Your task to perform on an android device: toggle notification dots Image 0: 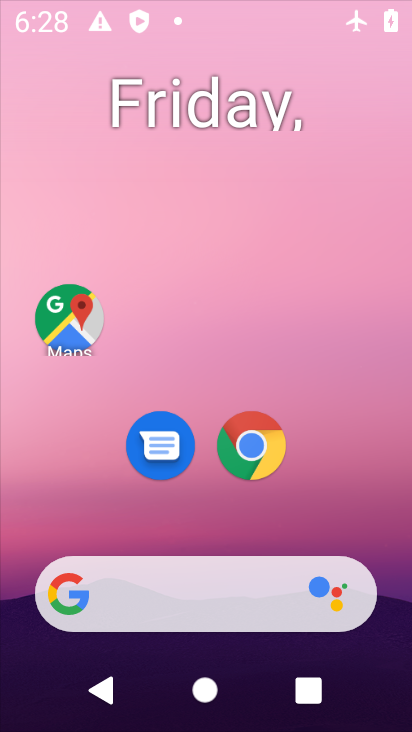
Step 0: drag from (206, 533) to (260, 159)
Your task to perform on an android device: toggle notification dots Image 1: 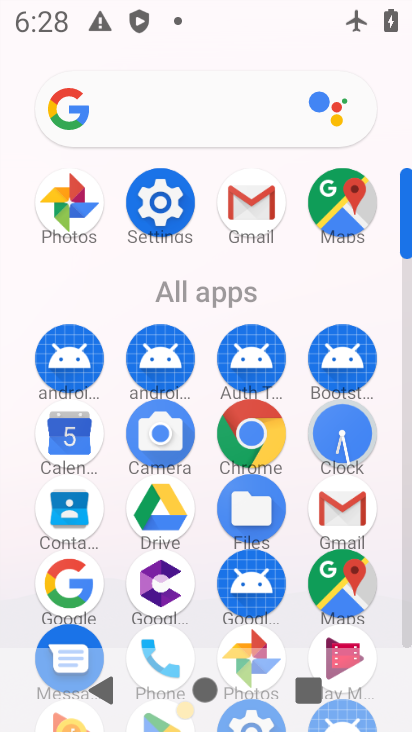
Step 1: drag from (188, 588) to (227, 289)
Your task to perform on an android device: toggle notification dots Image 2: 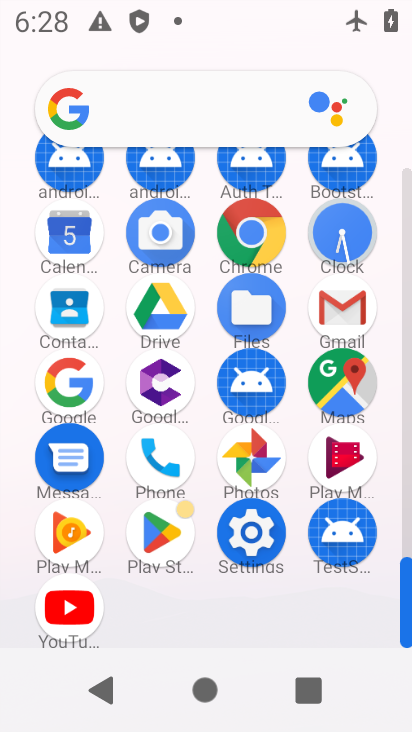
Step 2: click (242, 542)
Your task to perform on an android device: toggle notification dots Image 3: 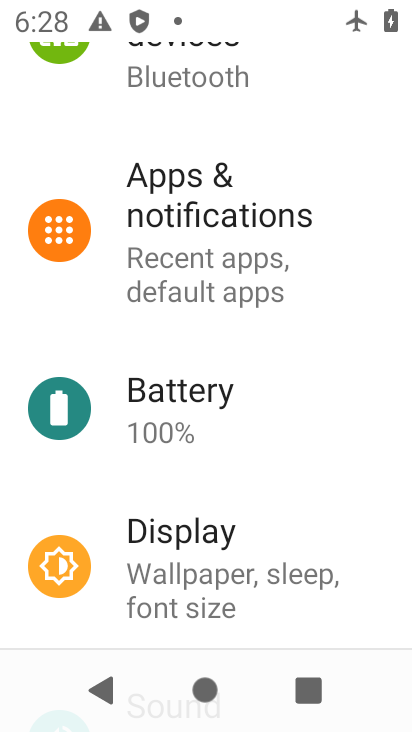
Step 3: drag from (217, 278) to (290, 665)
Your task to perform on an android device: toggle notification dots Image 4: 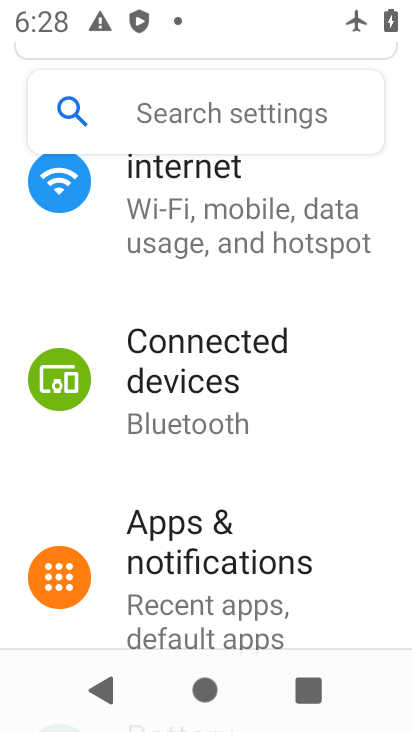
Step 4: drag from (249, 354) to (362, 241)
Your task to perform on an android device: toggle notification dots Image 5: 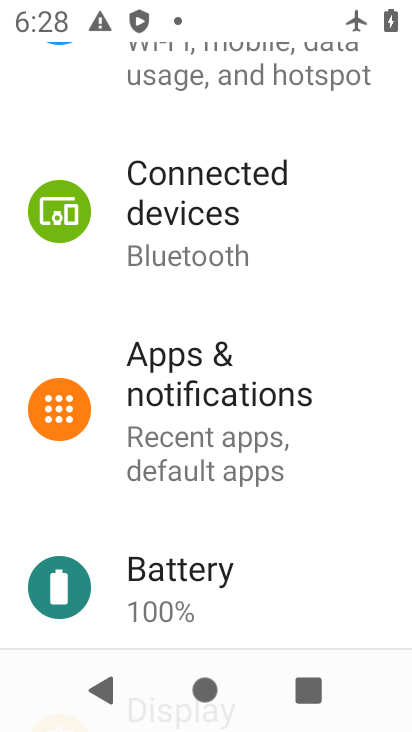
Step 5: click (220, 398)
Your task to perform on an android device: toggle notification dots Image 6: 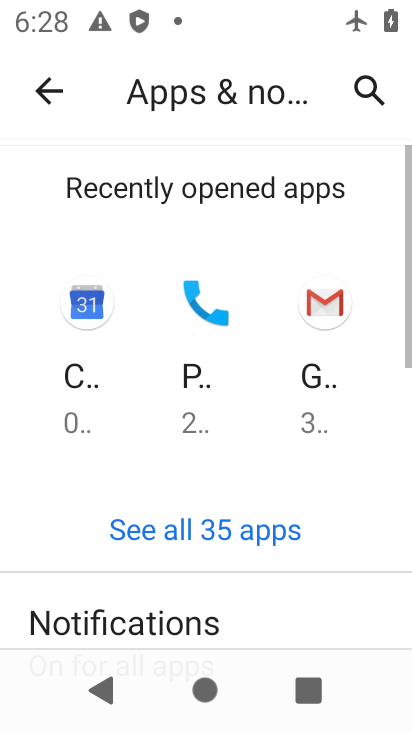
Step 6: drag from (166, 568) to (222, 252)
Your task to perform on an android device: toggle notification dots Image 7: 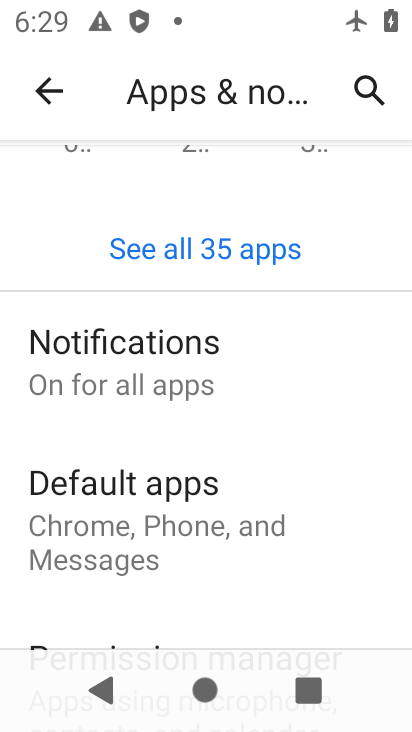
Step 7: click (165, 350)
Your task to perform on an android device: toggle notification dots Image 8: 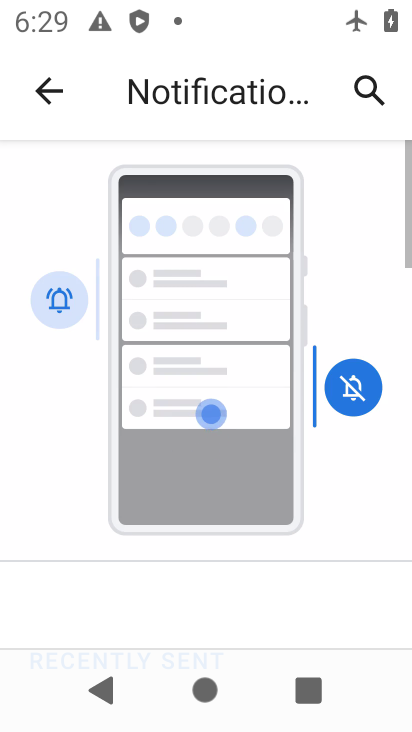
Step 8: drag from (182, 508) to (249, 172)
Your task to perform on an android device: toggle notification dots Image 9: 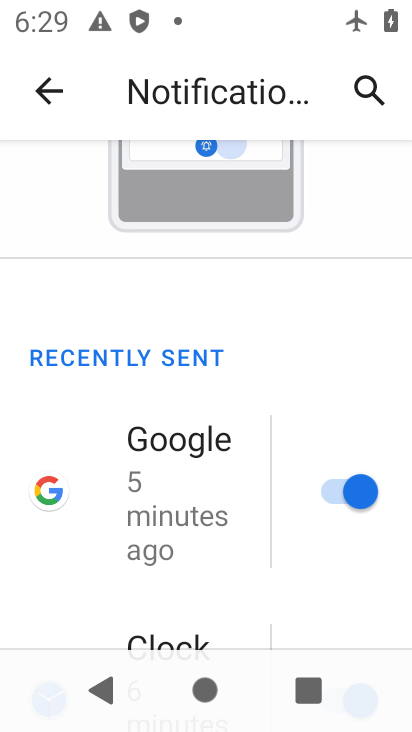
Step 9: drag from (177, 591) to (237, 201)
Your task to perform on an android device: toggle notification dots Image 10: 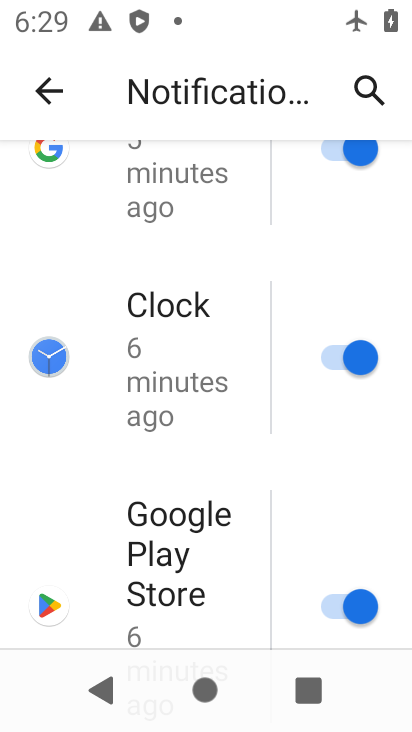
Step 10: drag from (215, 521) to (271, 89)
Your task to perform on an android device: toggle notification dots Image 11: 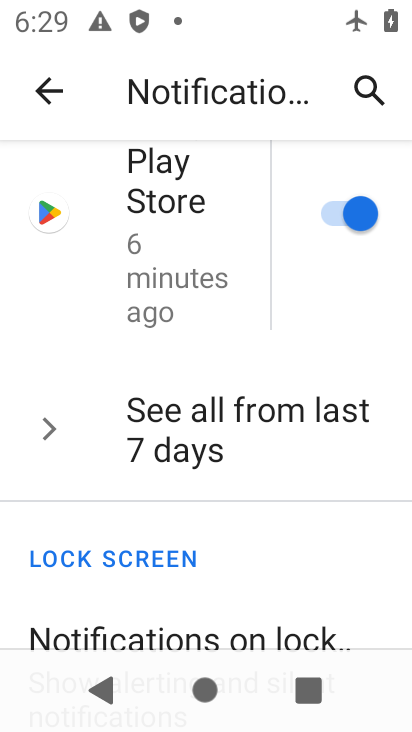
Step 11: drag from (215, 525) to (278, 181)
Your task to perform on an android device: toggle notification dots Image 12: 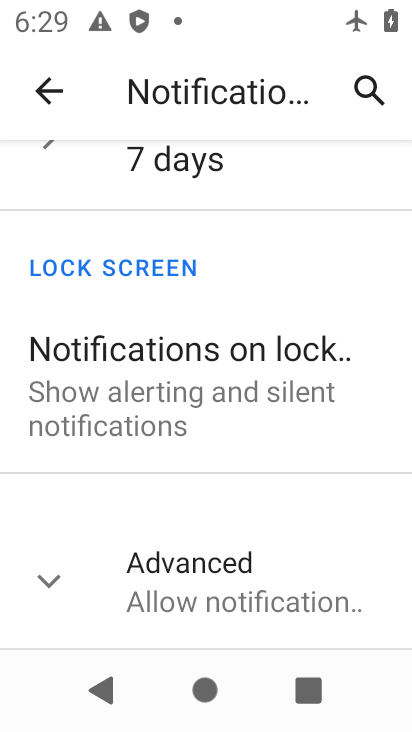
Step 12: click (214, 584)
Your task to perform on an android device: toggle notification dots Image 13: 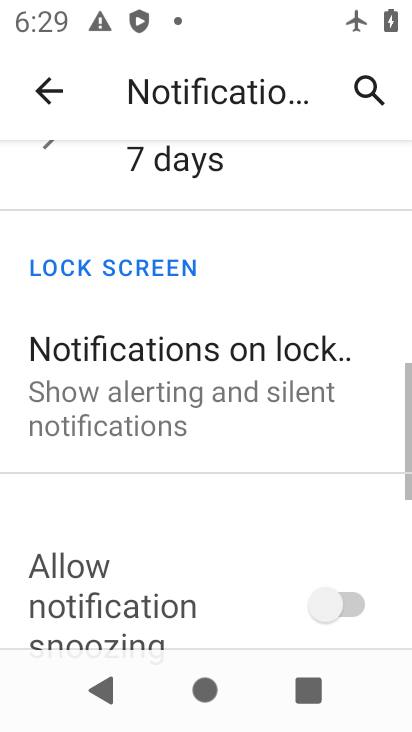
Step 13: drag from (209, 576) to (259, 183)
Your task to perform on an android device: toggle notification dots Image 14: 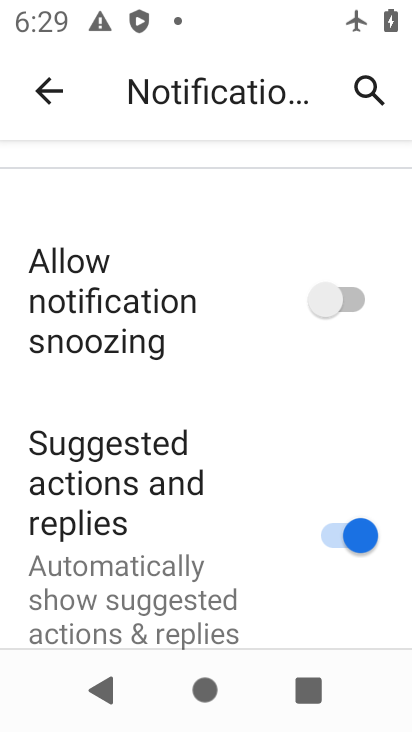
Step 14: drag from (230, 537) to (296, 60)
Your task to perform on an android device: toggle notification dots Image 15: 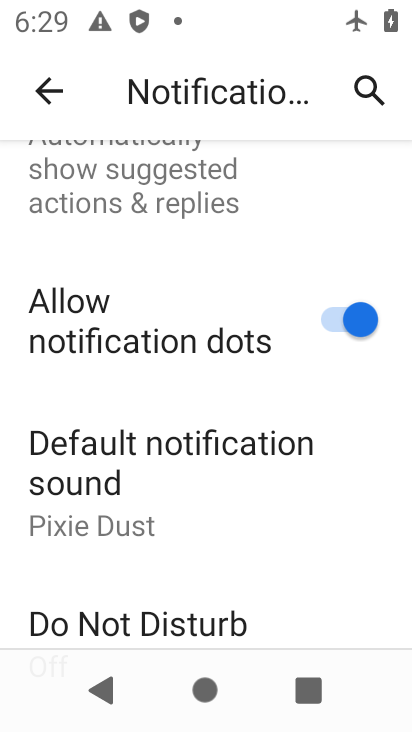
Step 15: click (330, 326)
Your task to perform on an android device: toggle notification dots Image 16: 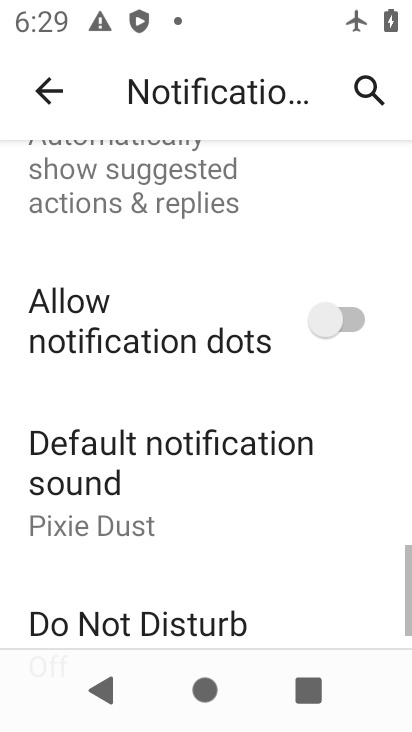
Step 16: task complete